Your task to perform on an android device: turn off improve location accuracy Image 0: 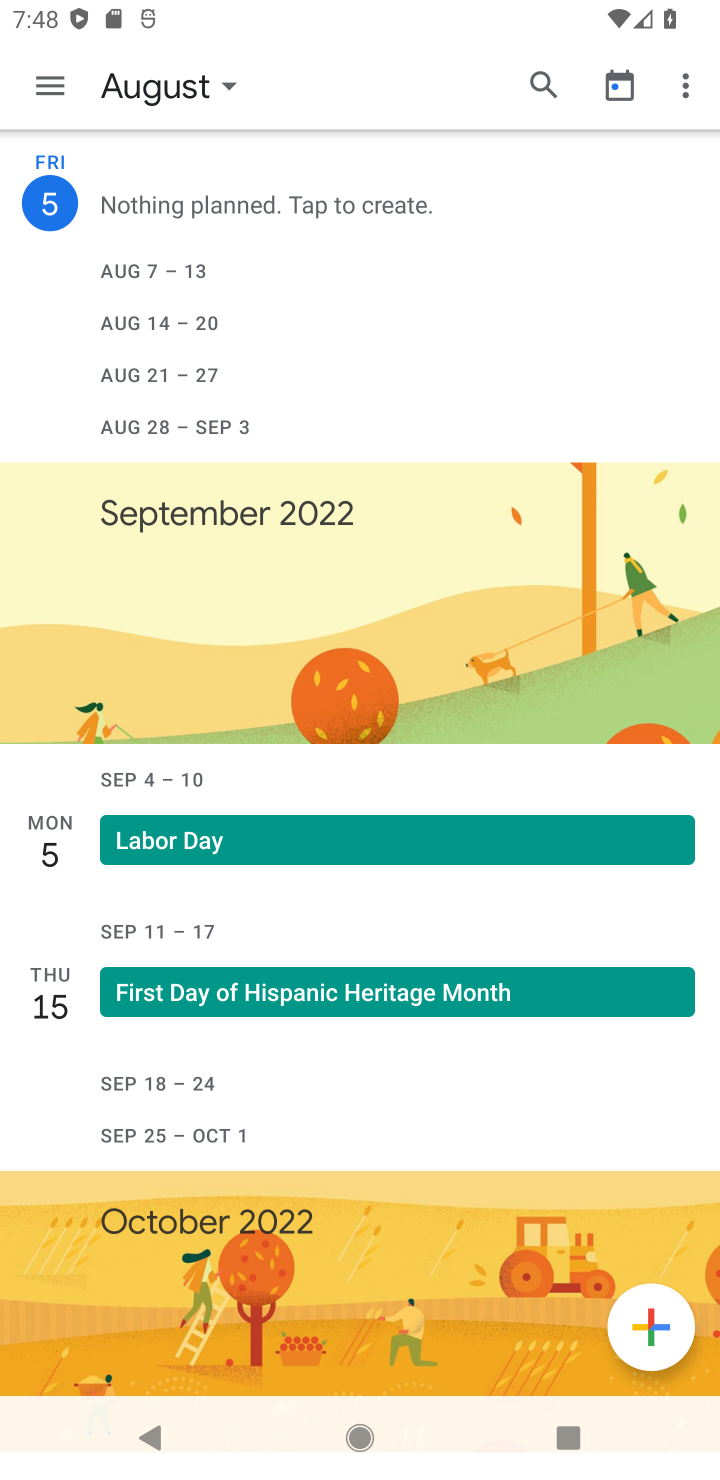
Step 0: press home button
Your task to perform on an android device: turn off improve location accuracy Image 1: 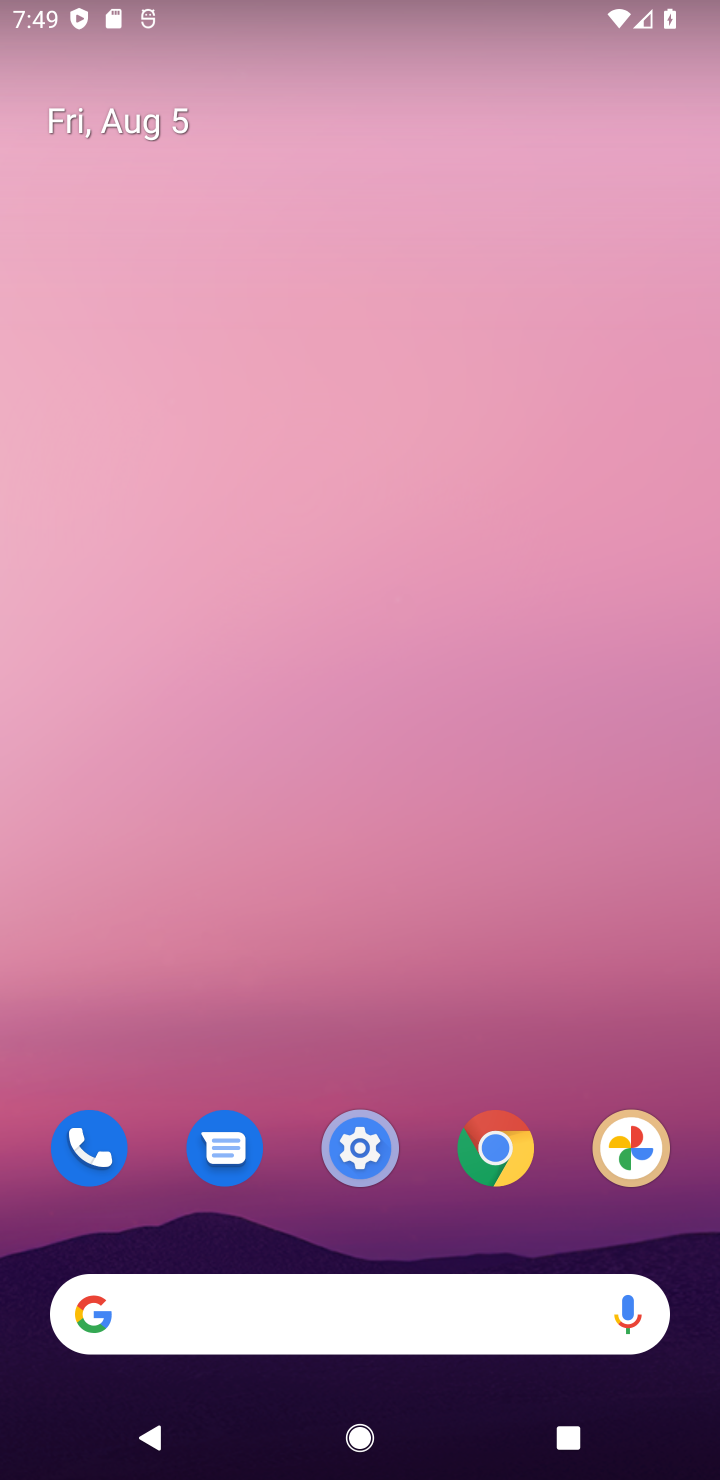
Step 1: drag from (418, 1243) to (437, 225)
Your task to perform on an android device: turn off improve location accuracy Image 2: 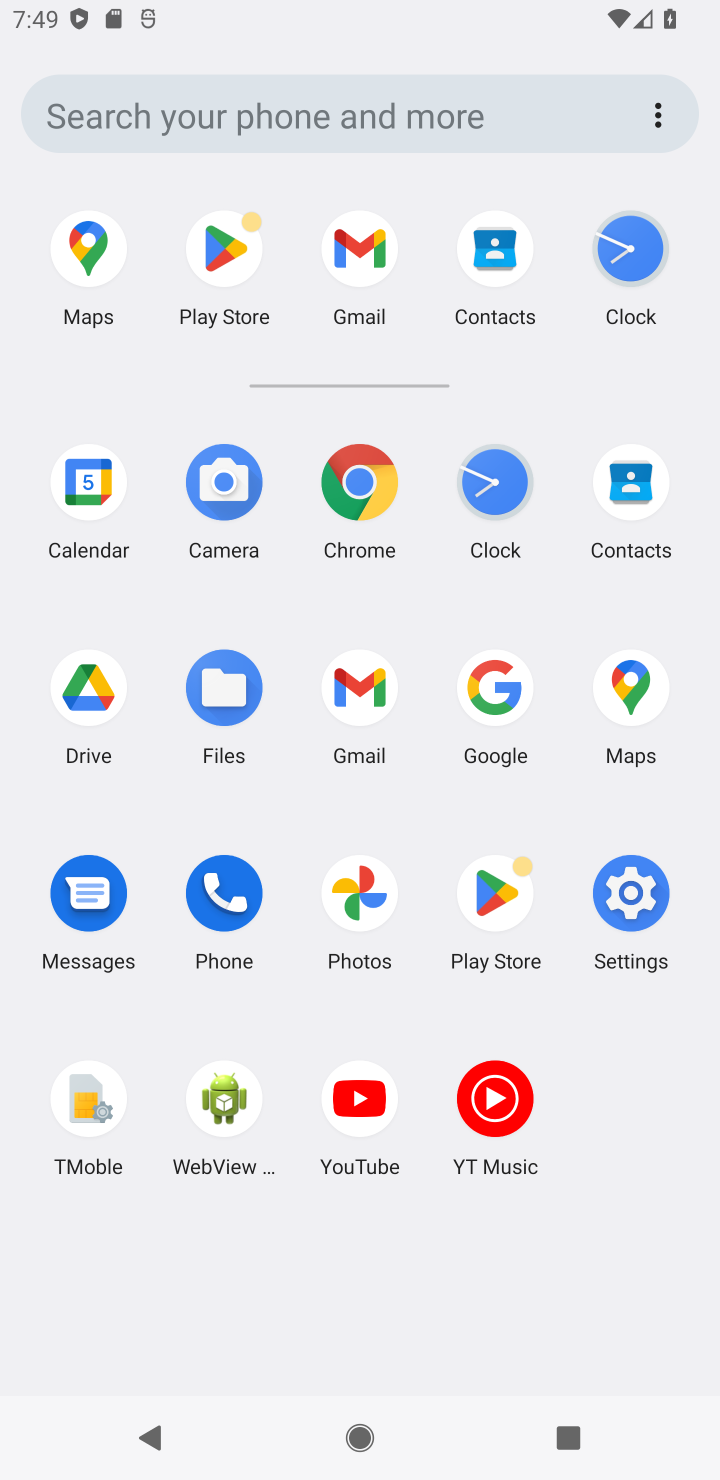
Step 2: click (613, 898)
Your task to perform on an android device: turn off improve location accuracy Image 3: 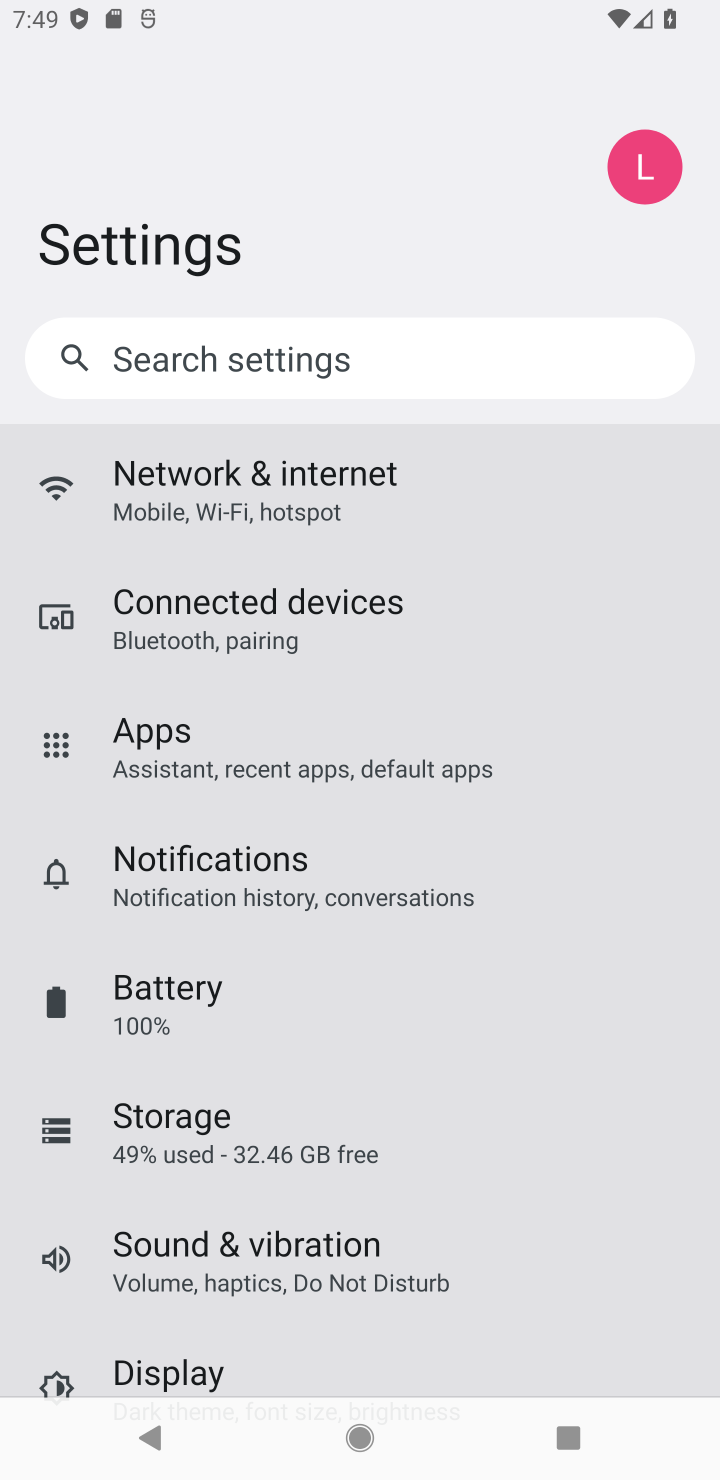
Step 3: drag from (335, 1060) to (325, 770)
Your task to perform on an android device: turn off improve location accuracy Image 4: 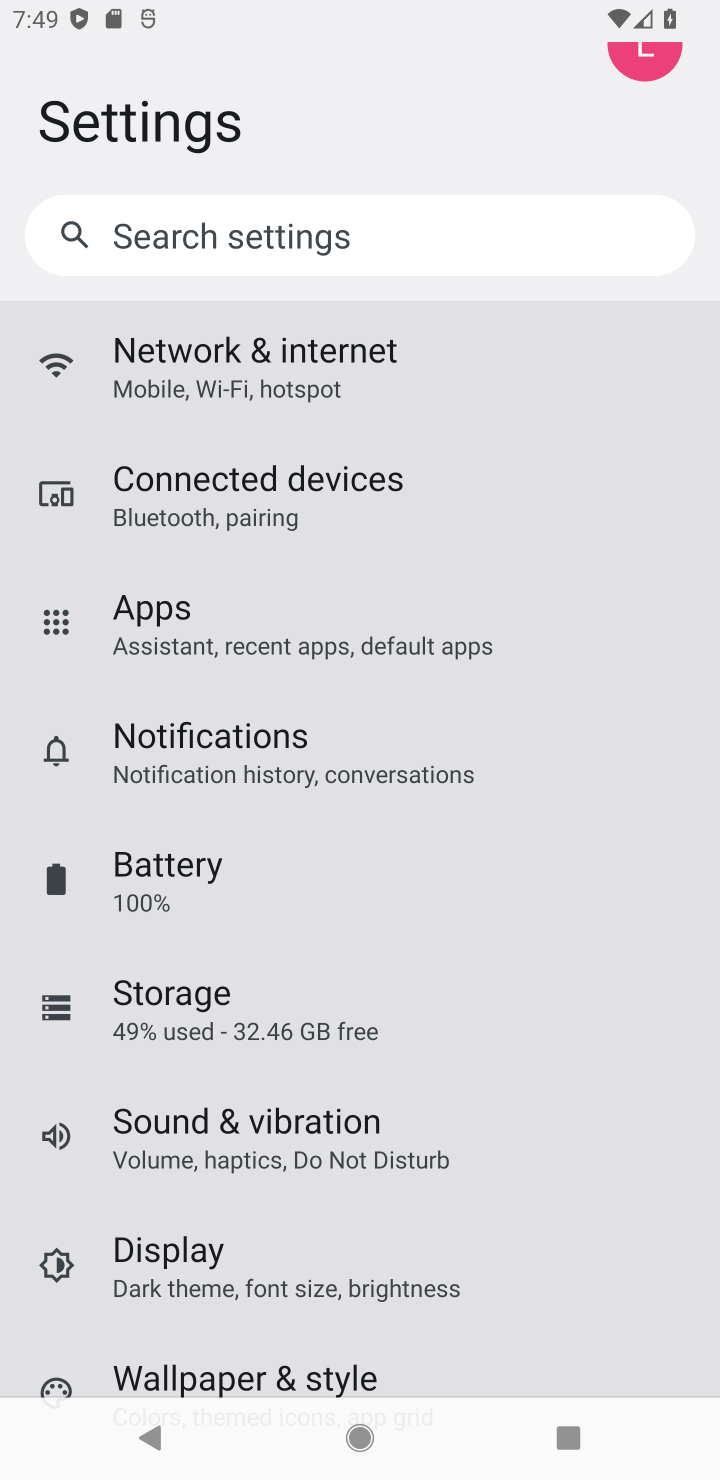
Step 4: drag from (323, 1152) to (291, 670)
Your task to perform on an android device: turn off improve location accuracy Image 5: 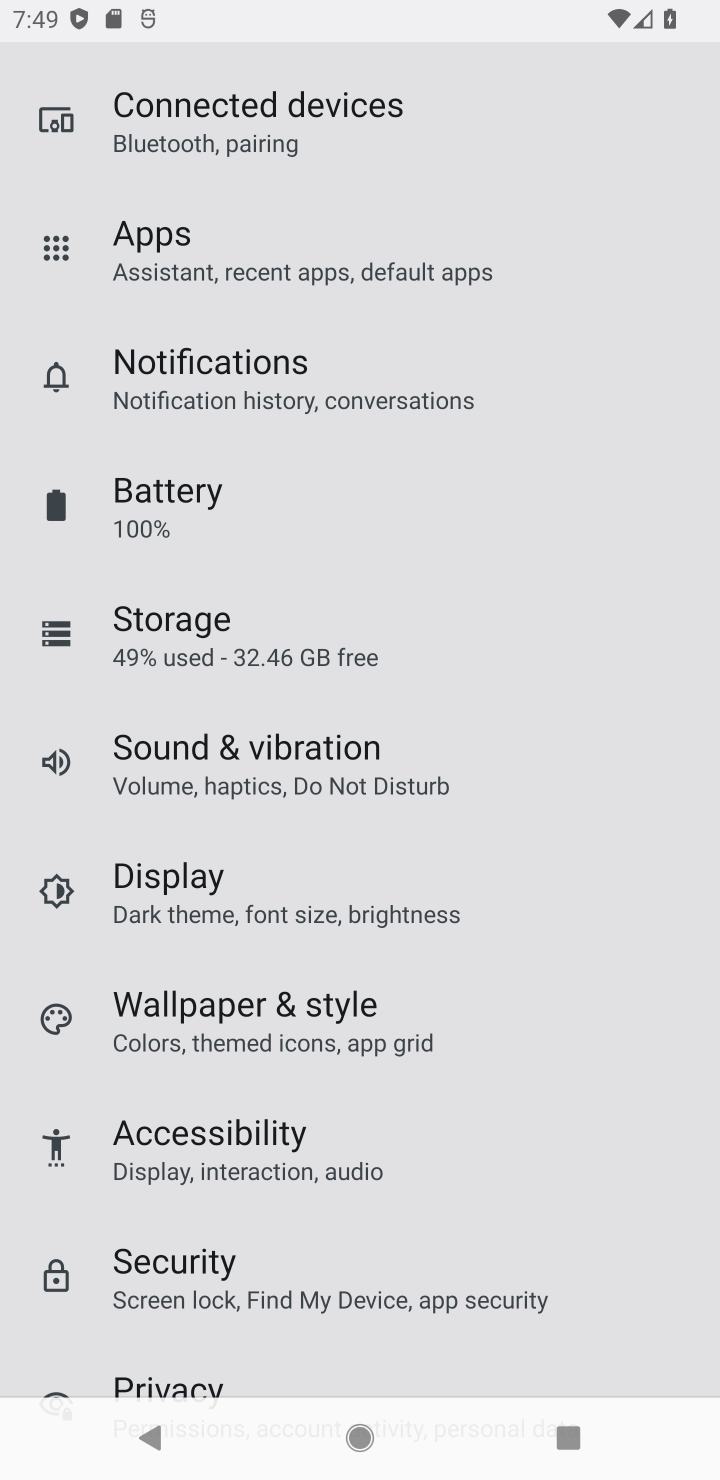
Step 5: drag from (283, 1342) to (271, 694)
Your task to perform on an android device: turn off improve location accuracy Image 6: 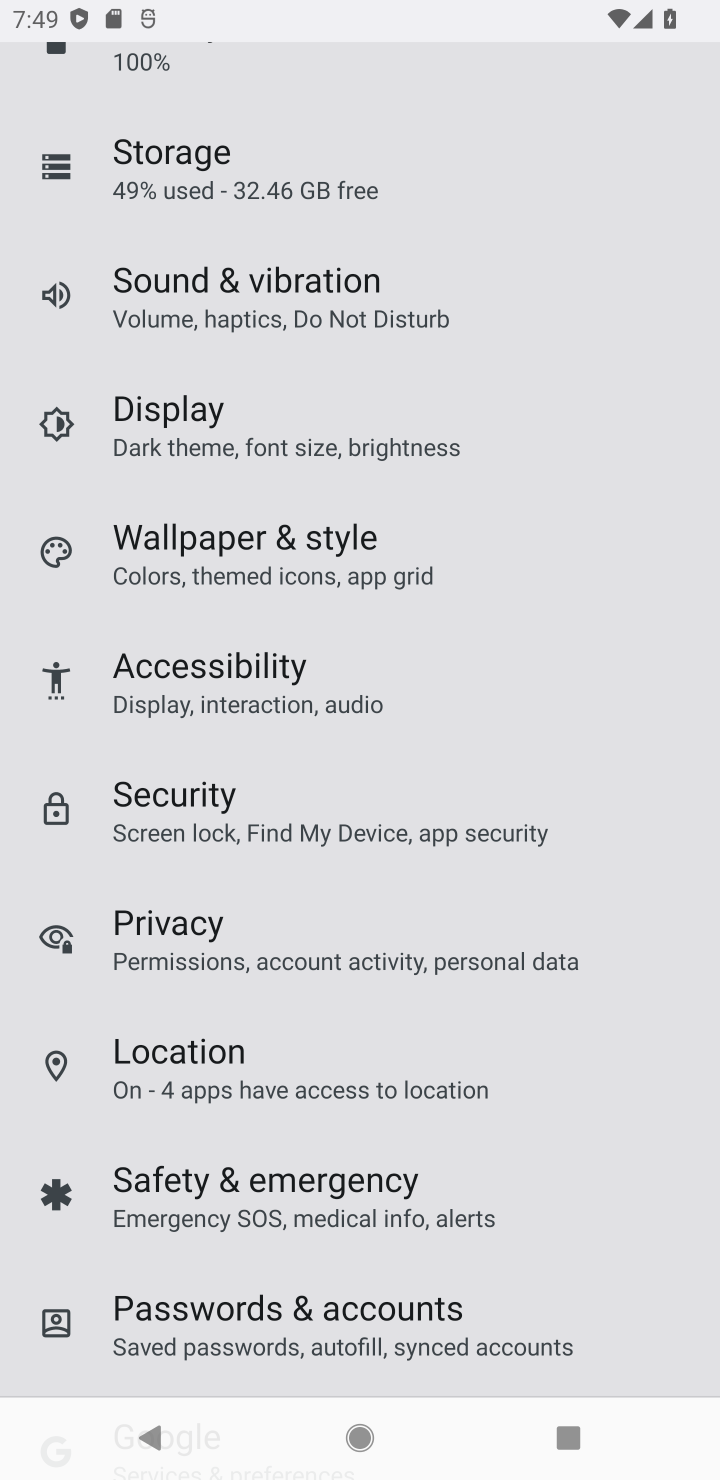
Step 6: click (268, 1088)
Your task to perform on an android device: turn off improve location accuracy Image 7: 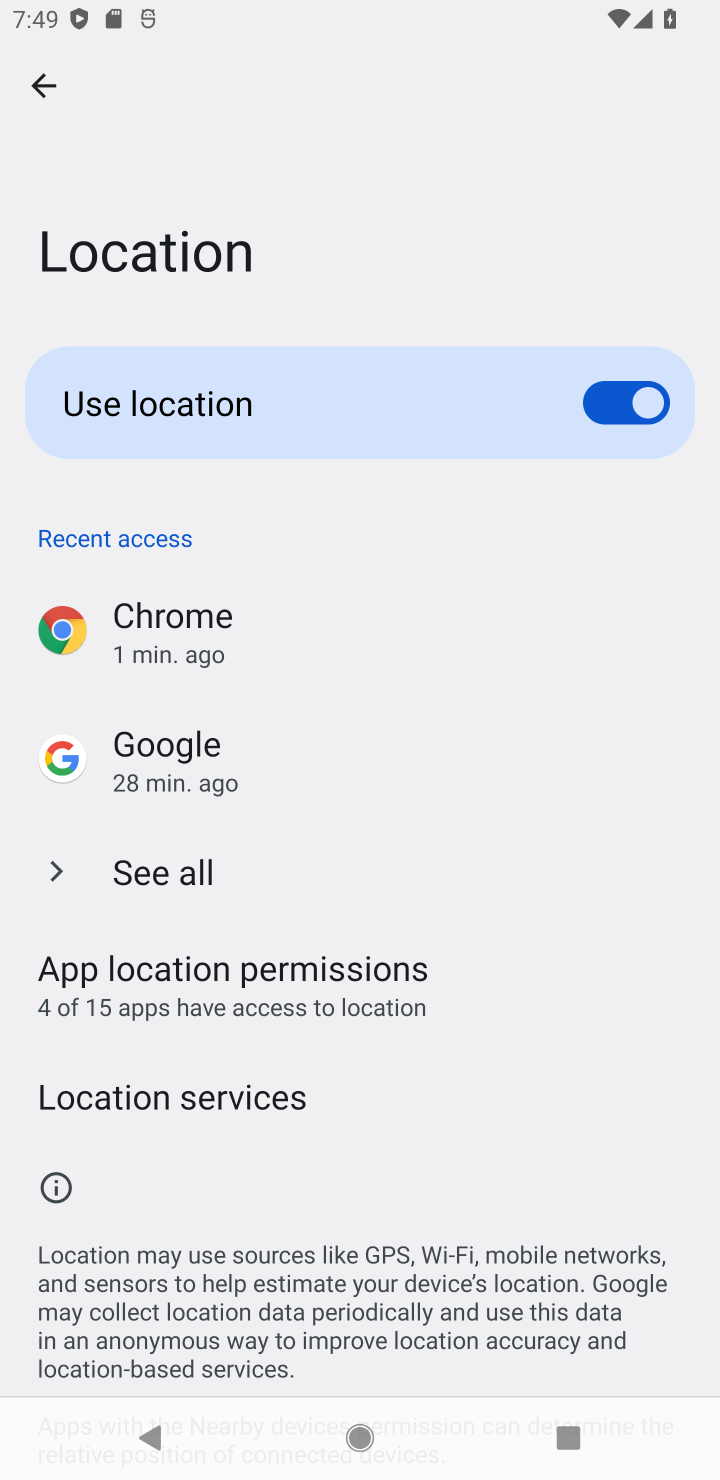
Step 7: task complete